Your task to perform on an android device: Is it going to rain this weekend? Image 0: 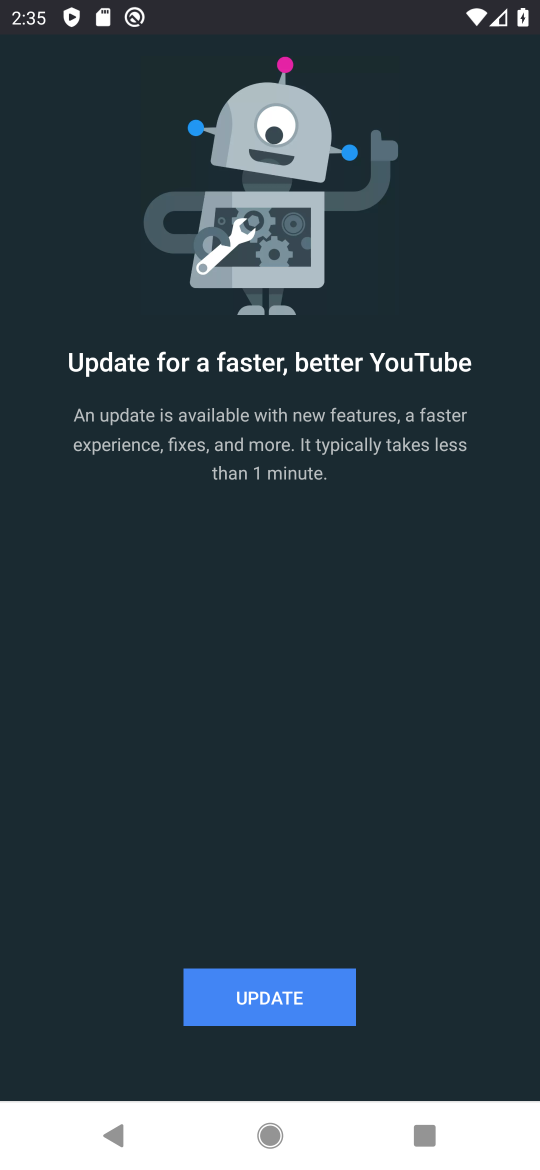
Step 0: press home button
Your task to perform on an android device: Is it going to rain this weekend? Image 1: 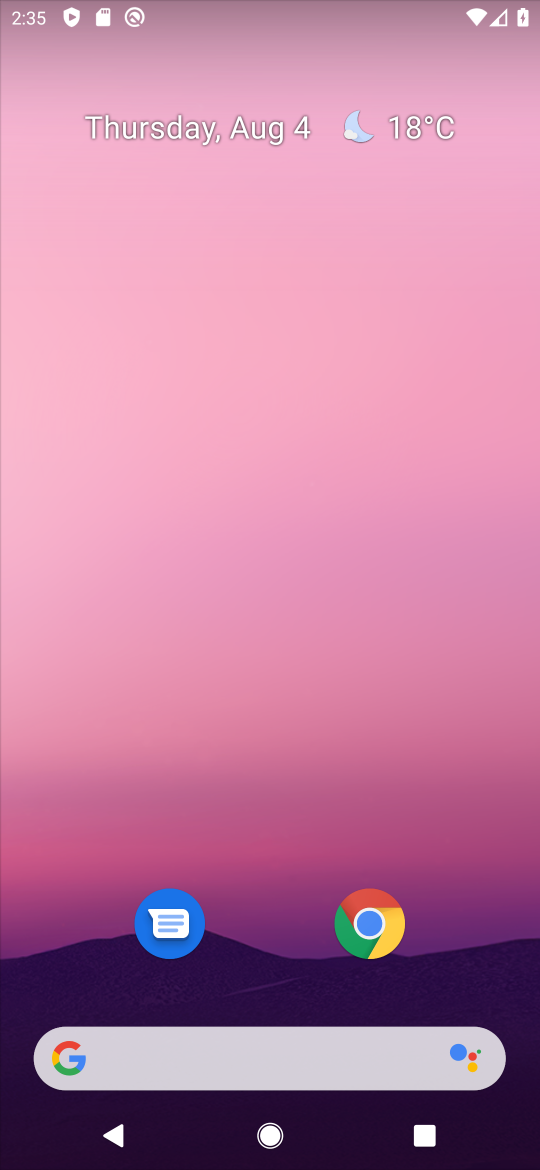
Step 1: drag from (265, 969) to (337, 126)
Your task to perform on an android device: Is it going to rain this weekend? Image 2: 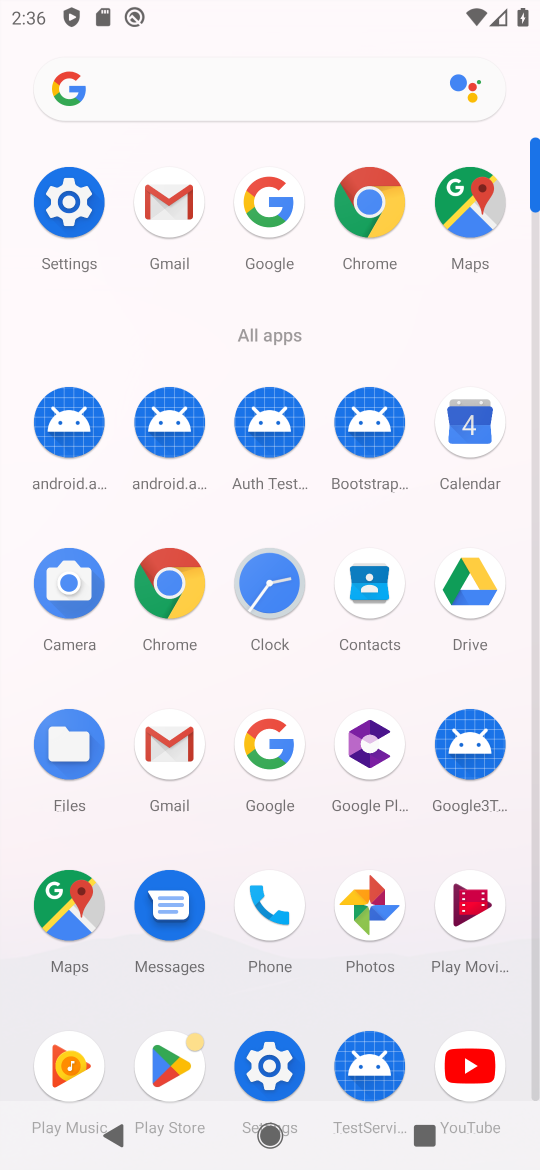
Step 2: click (265, 769)
Your task to perform on an android device: Is it going to rain this weekend? Image 3: 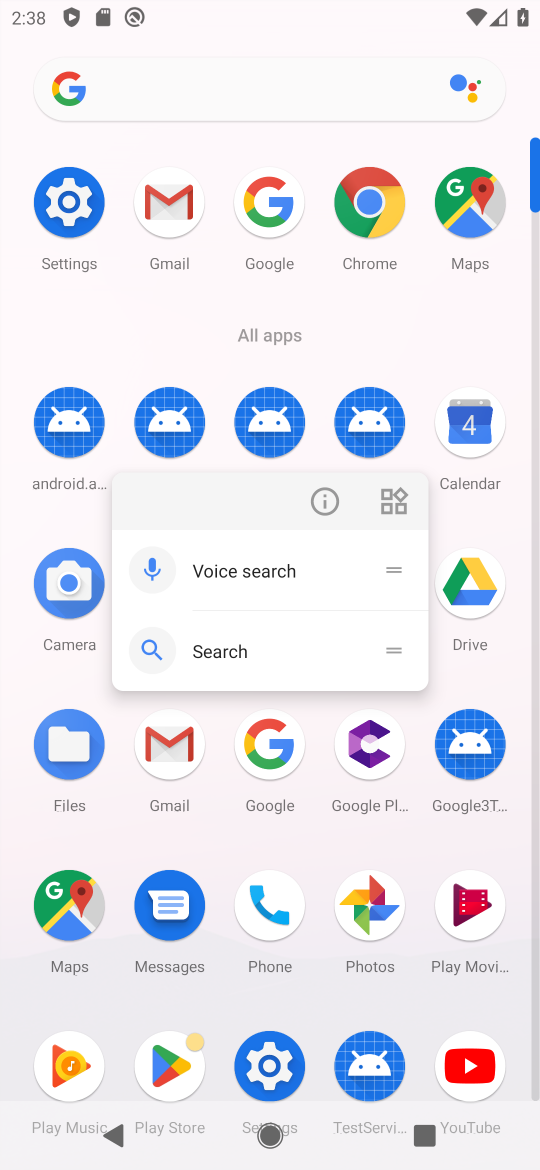
Step 3: task complete